Your task to perform on an android device: Is it going to rain this weekend? Image 0: 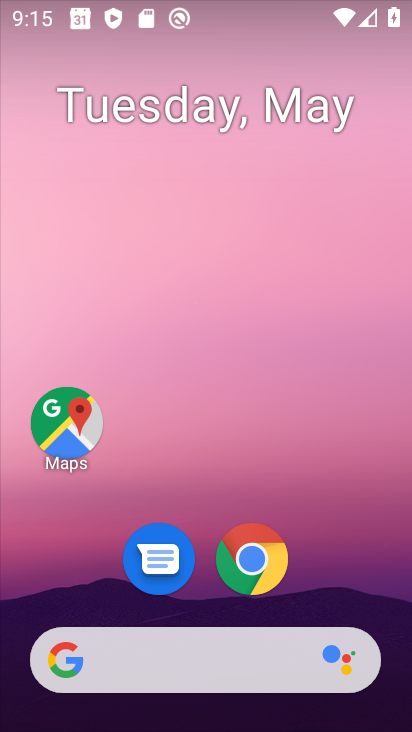
Step 0: click (197, 160)
Your task to perform on an android device: Is it going to rain this weekend? Image 1: 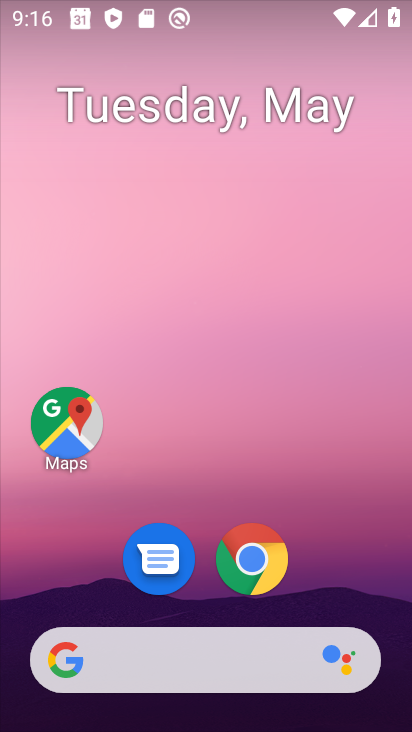
Step 1: drag from (382, 648) to (200, 141)
Your task to perform on an android device: Is it going to rain this weekend? Image 2: 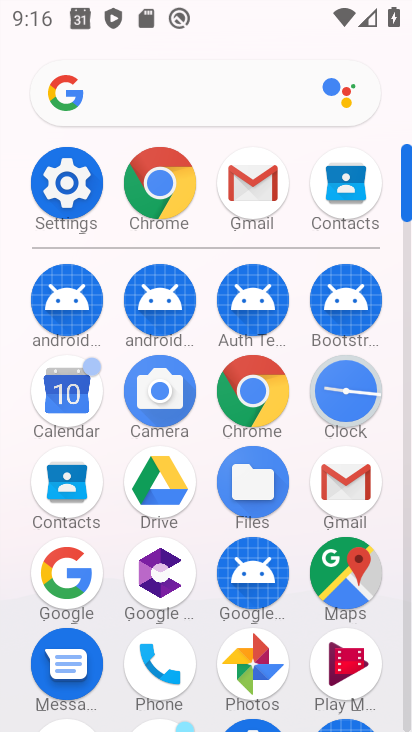
Step 2: press back button
Your task to perform on an android device: Is it going to rain this weekend? Image 3: 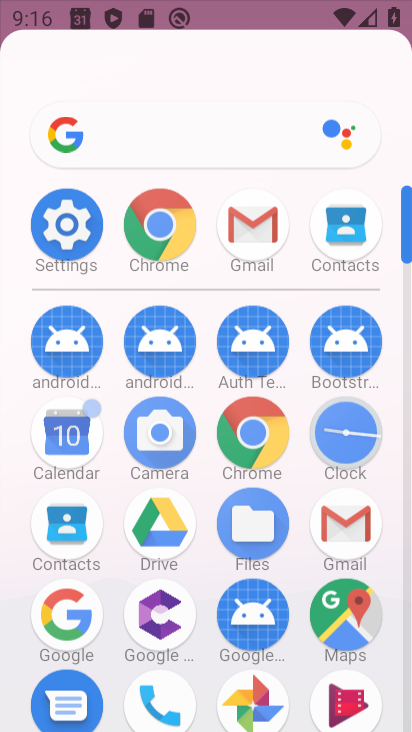
Step 3: press back button
Your task to perform on an android device: Is it going to rain this weekend? Image 4: 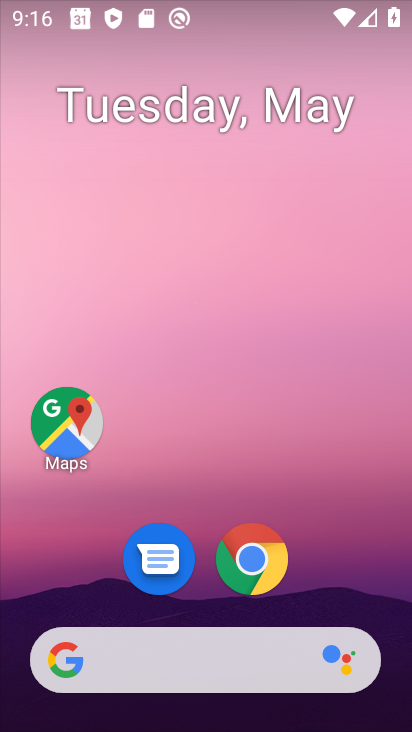
Step 4: drag from (12, 205) to (384, 326)
Your task to perform on an android device: Is it going to rain this weekend? Image 5: 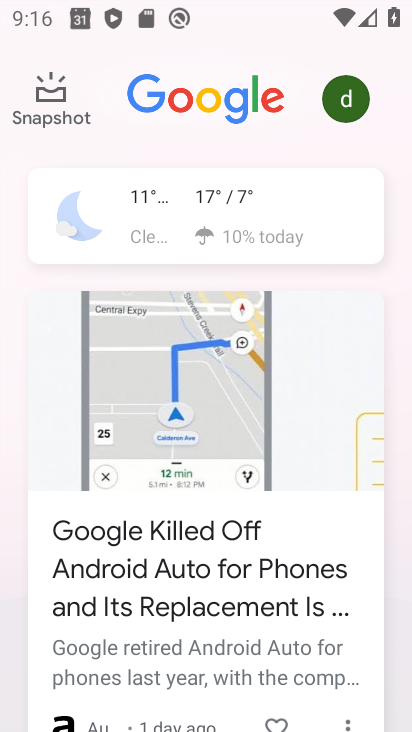
Step 5: click (224, 207)
Your task to perform on an android device: Is it going to rain this weekend? Image 6: 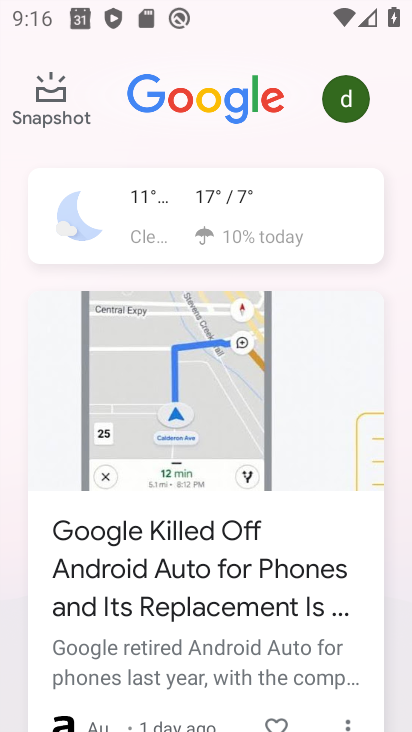
Step 6: click (223, 206)
Your task to perform on an android device: Is it going to rain this weekend? Image 7: 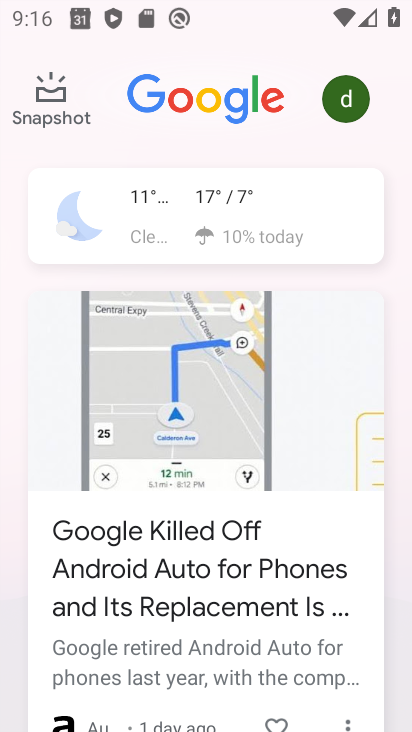
Step 7: click (211, 190)
Your task to perform on an android device: Is it going to rain this weekend? Image 8: 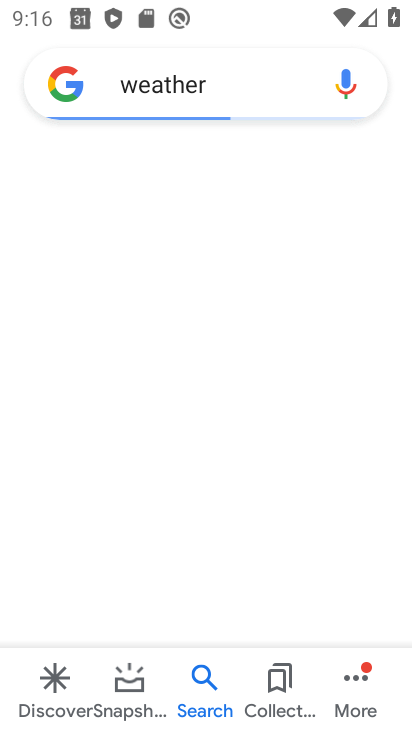
Step 8: click (233, 214)
Your task to perform on an android device: Is it going to rain this weekend? Image 9: 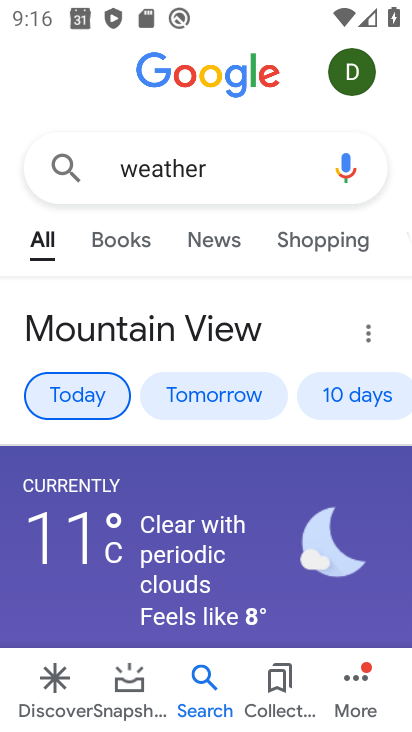
Step 9: click (188, 384)
Your task to perform on an android device: Is it going to rain this weekend? Image 10: 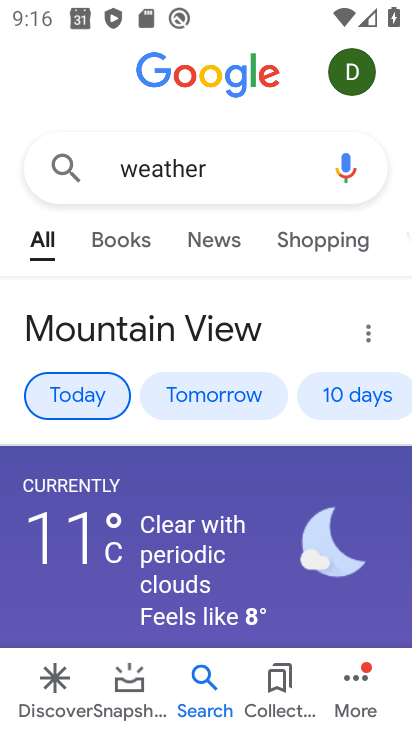
Step 10: click (189, 390)
Your task to perform on an android device: Is it going to rain this weekend? Image 11: 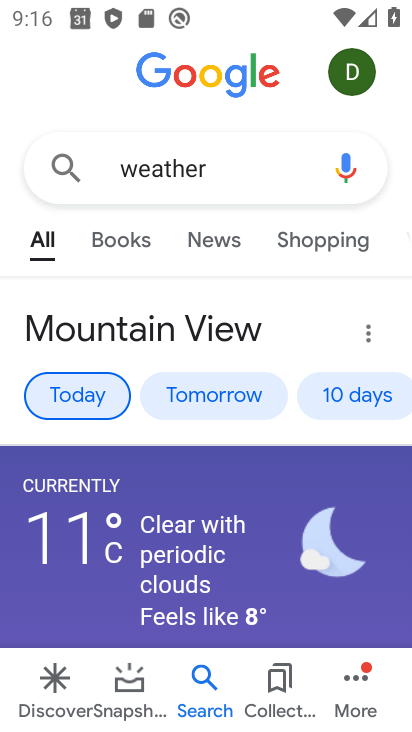
Step 11: click (189, 397)
Your task to perform on an android device: Is it going to rain this weekend? Image 12: 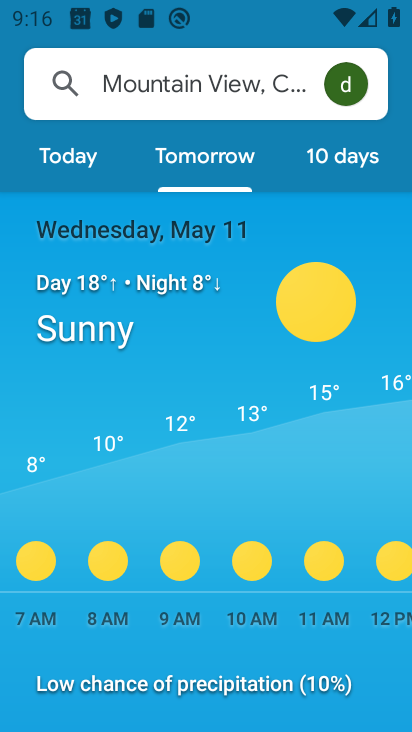
Step 12: drag from (228, 541) to (202, 130)
Your task to perform on an android device: Is it going to rain this weekend? Image 13: 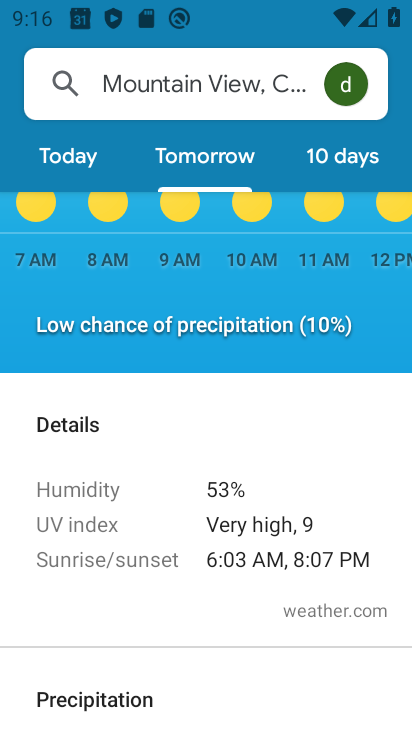
Step 13: drag from (219, 401) to (271, 2)
Your task to perform on an android device: Is it going to rain this weekend? Image 14: 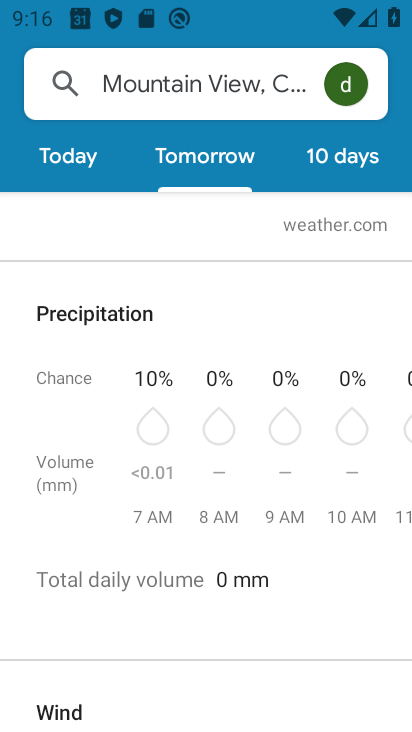
Step 14: drag from (252, 506) to (245, 203)
Your task to perform on an android device: Is it going to rain this weekend? Image 15: 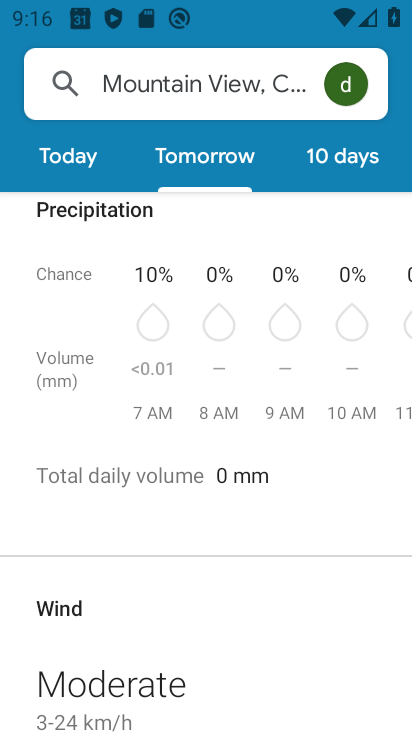
Step 15: drag from (221, 277) to (277, 621)
Your task to perform on an android device: Is it going to rain this weekend? Image 16: 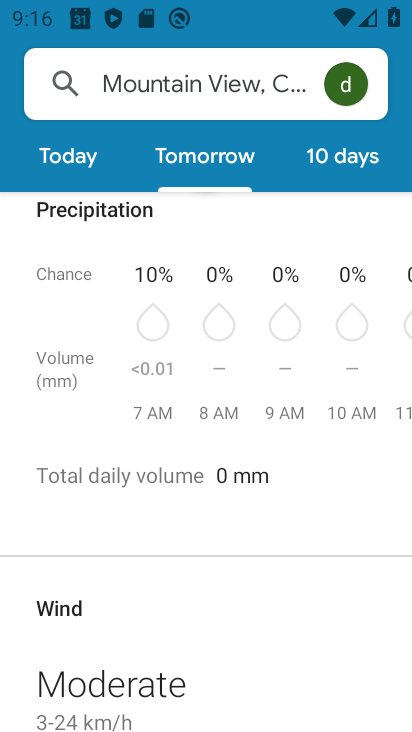
Step 16: drag from (294, 310) to (294, 679)
Your task to perform on an android device: Is it going to rain this weekend? Image 17: 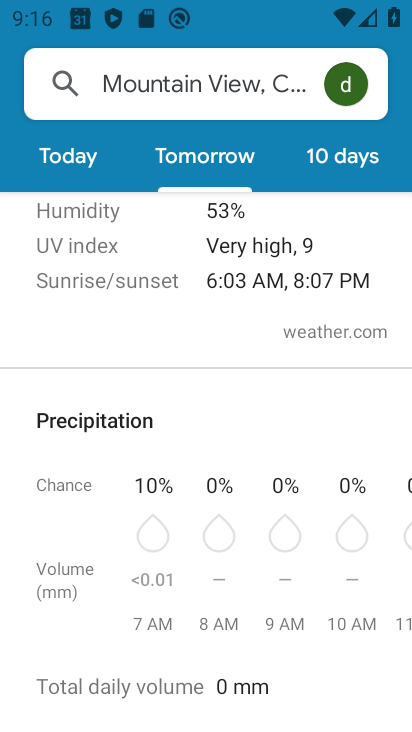
Step 17: drag from (245, 326) to (236, 614)
Your task to perform on an android device: Is it going to rain this weekend? Image 18: 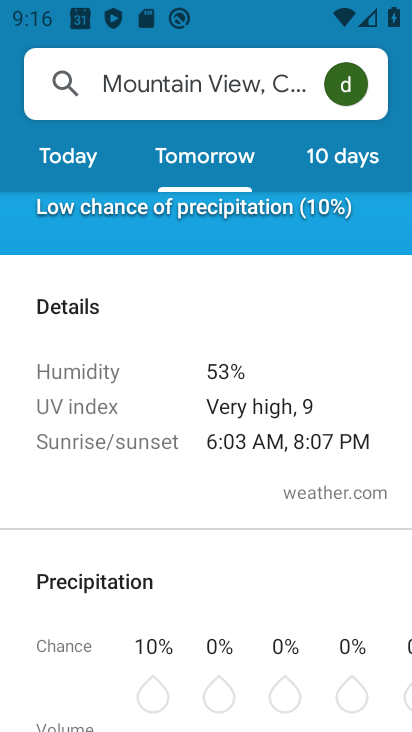
Step 18: drag from (185, 324) to (185, 564)
Your task to perform on an android device: Is it going to rain this weekend? Image 19: 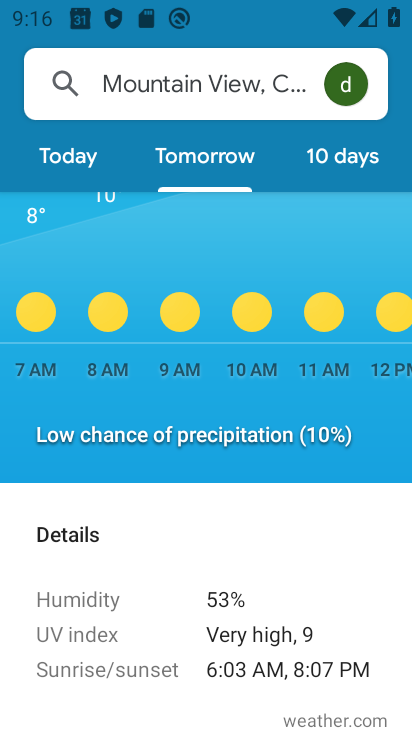
Step 19: drag from (185, 319) to (216, 491)
Your task to perform on an android device: Is it going to rain this weekend? Image 20: 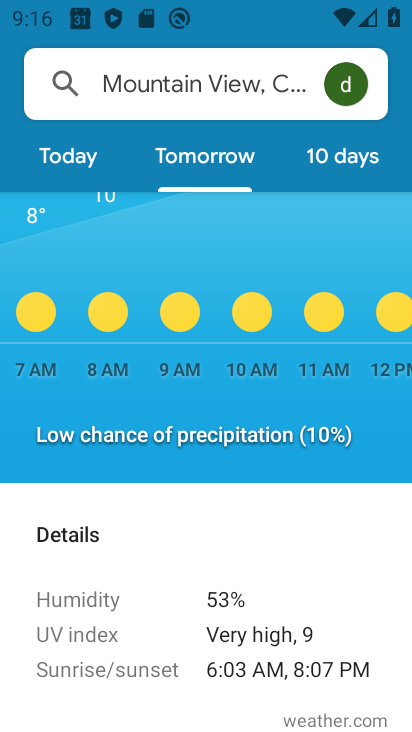
Step 20: drag from (232, 509) to (244, 581)
Your task to perform on an android device: Is it going to rain this weekend? Image 21: 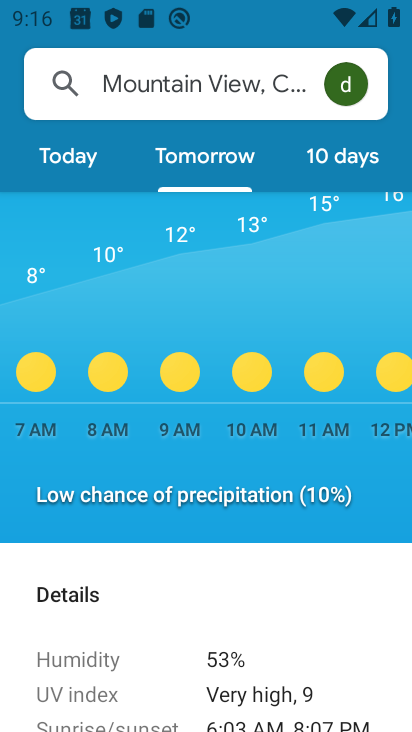
Step 21: click (331, 168)
Your task to perform on an android device: Is it going to rain this weekend? Image 22: 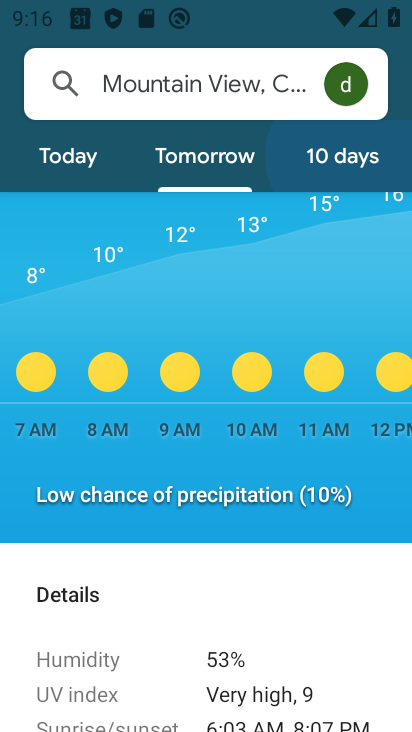
Step 22: click (331, 166)
Your task to perform on an android device: Is it going to rain this weekend? Image 23: 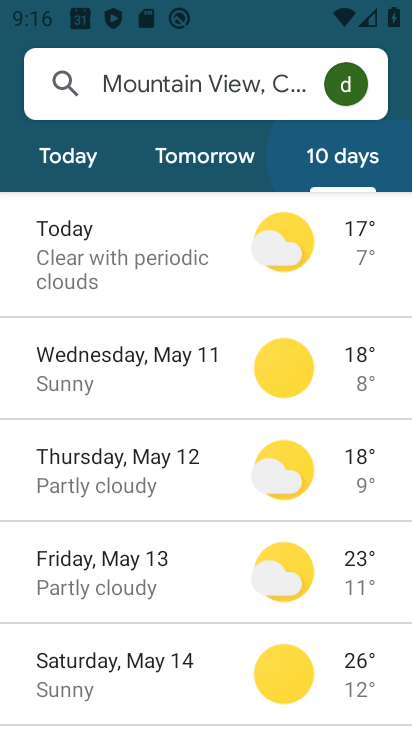
Step 23: click (332, 165)
Your task to perform on an android device: Is it going to rain this weekend? Image 24: 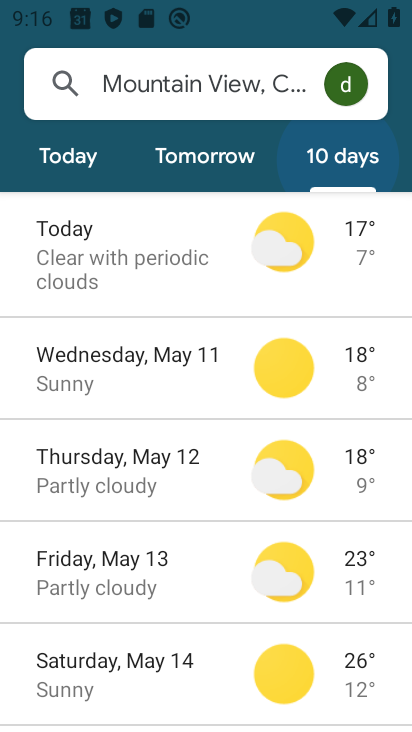
Step 24: click (332, 165)
Your task to perform on an android device: Is it going to rain this weekend? Image 25: 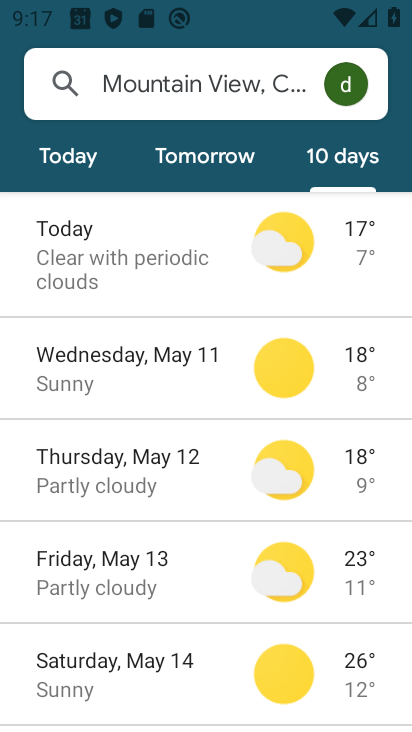
Step 25: task complete